Your task to perform on an android device: Do I have any events tomorrow? Image 0: 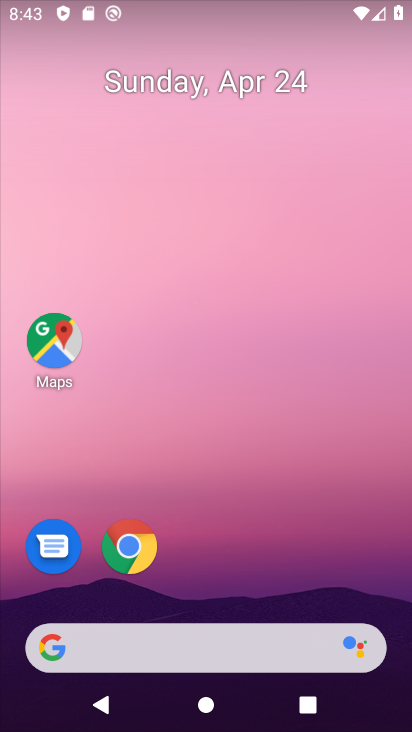
Step 0: drag from (273, 623) to (277, 223)
Your task to perform on an android device: Do I have any events tomorrow? Image 1: 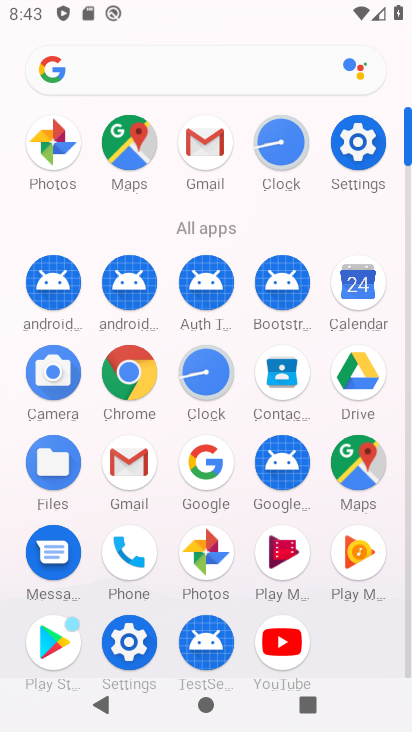
Step 1: click (360, 274)
Your task to perform on an android device: Do I have any events tomorrow? Image 2: 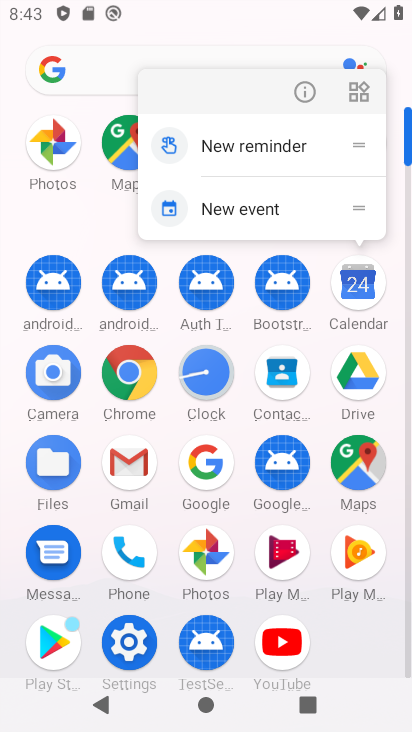
Step 2: click (359, 274)
Your task to perform on an android device: Do I have any events tomorrow? Image 3: 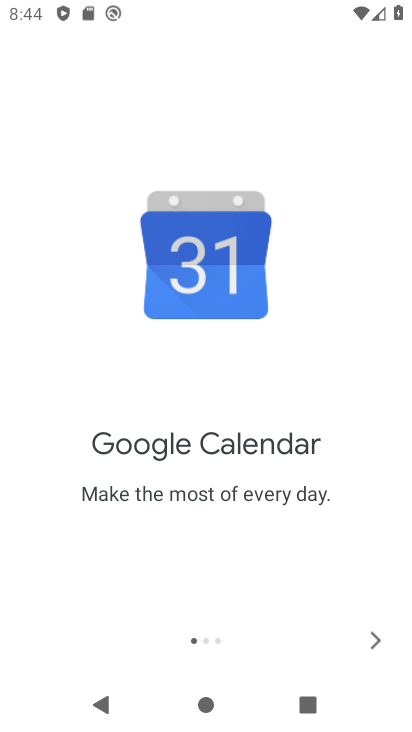
Step 3: click (368, 638)
Your task to perform on an android device: Do I have any events tomorrow? Image 4: 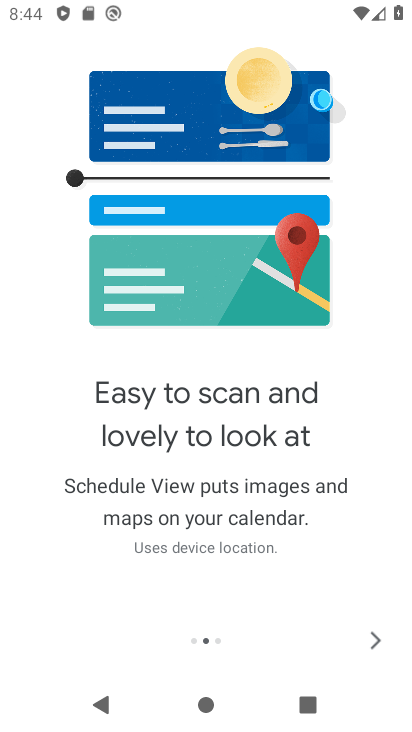
Step 4: click (368, 638)
Your task to perform on an android device: Do I have any events tomorrow? Image 5: 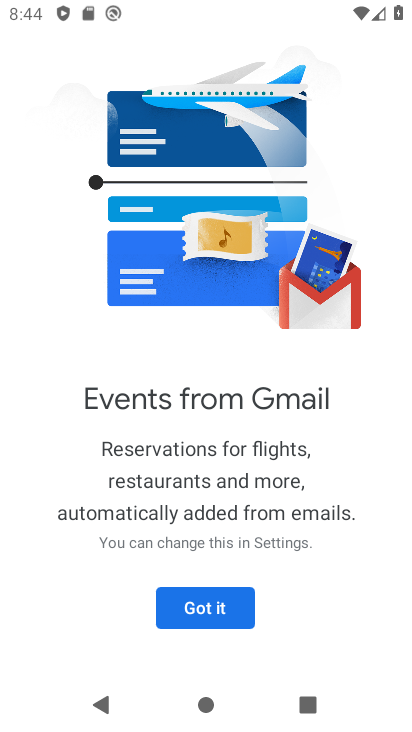
Step 5: click (205, 617)
Your task to perform on an android device: Do I have any events tomorrow? Image 6: 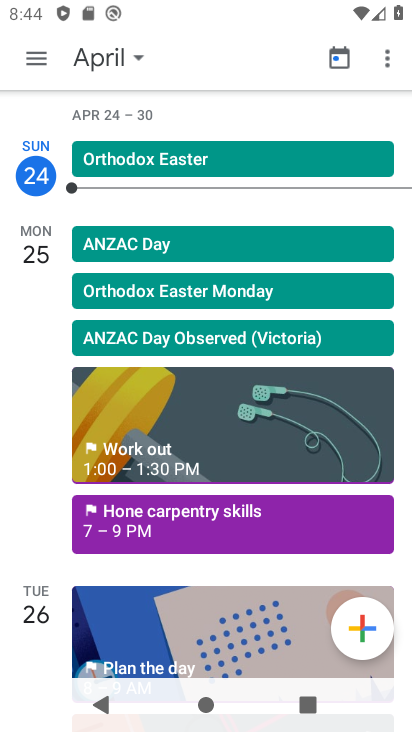
Step 6: click (27, 52)
Your task to perform on an android device: Do I have any events tomorrow? Image 7: 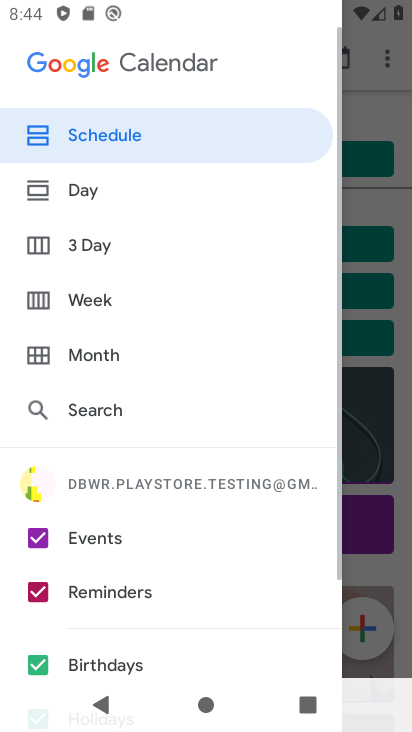
Step 7: click (95, 347)
Your task to perform on an android device: Do I have any events tomorrow? Image 8: 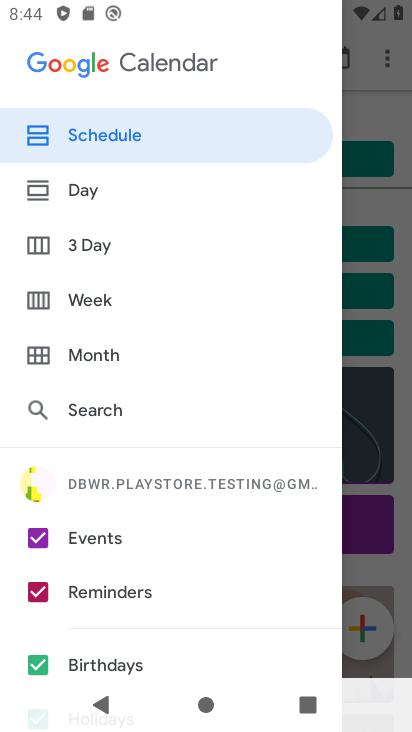
Step 8: click (107, 353)
Your task to perform on an android device: Do I have any events tomorrow? Image 9: 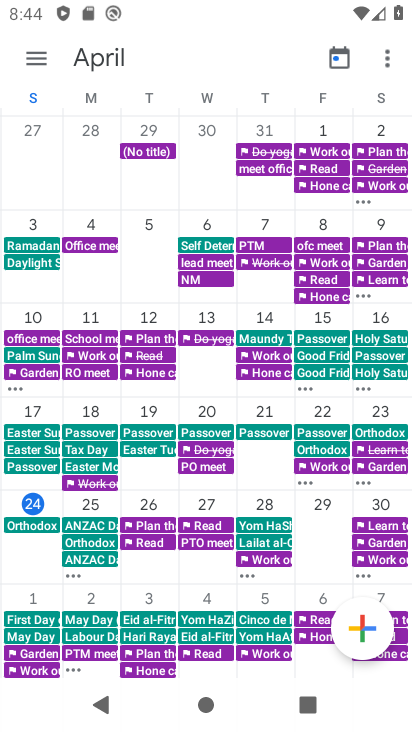
Step 9: click (22, 505)
Your task to perform on an android device: Do I have any events tomorrow? Image 10: 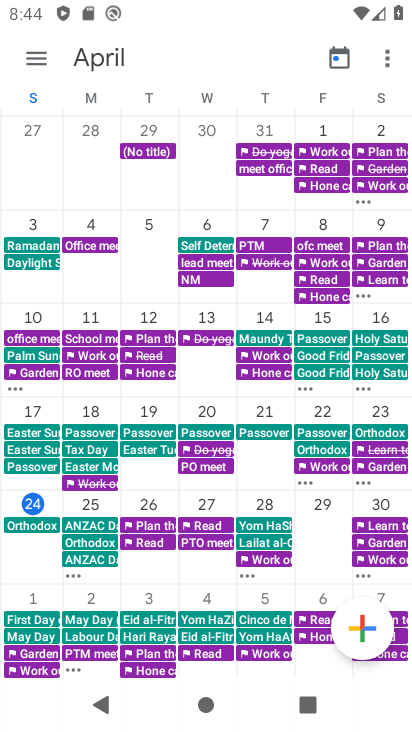
Step 10: click (22, 505)
Your task to perform on an android device: Do I have any events tomorrow? Image 11: 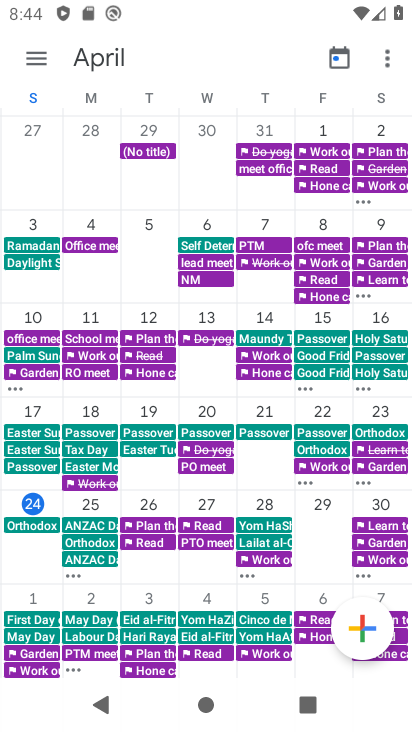
Step 11: click (26, 509)
Your task to perform on an android device: Do I have any events tomorrow? Image 12: 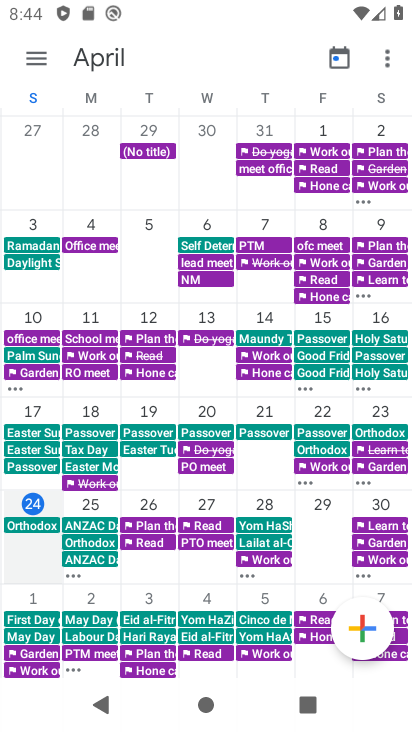
Step 12: click (32, 505)
Your task to perform on an android device: Do I have any events tomorrow? Image 13: 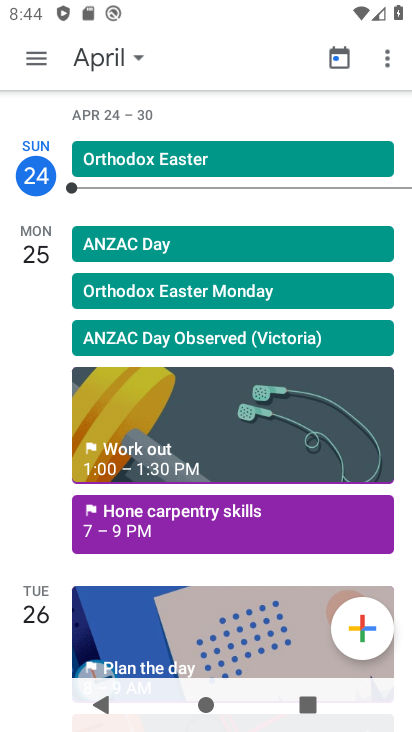
Step 13: press back button
Your task to perform on an android device: Do I have any events tomorrow? Image 14: 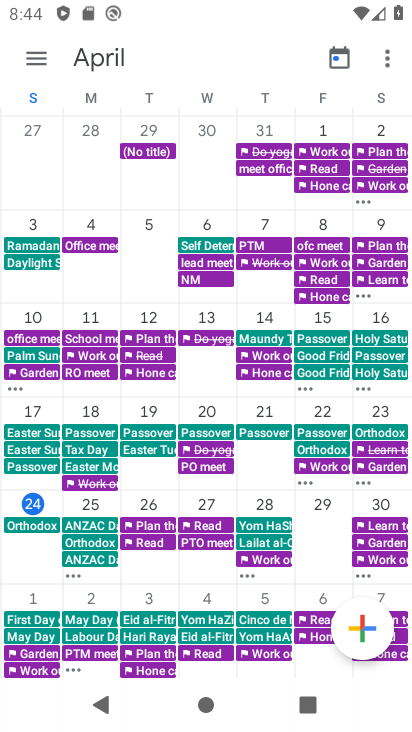
Step 14: click (80, 513)
Your task to perform on an android device: Do I have any events tomorrow? Image 15: 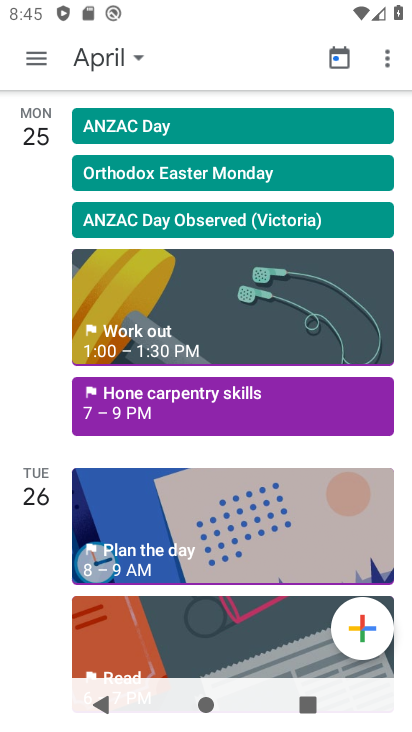
Step 15: click (133, 119)
Your task to perform on an android device: Do I have any events tomorrow? Image 16: 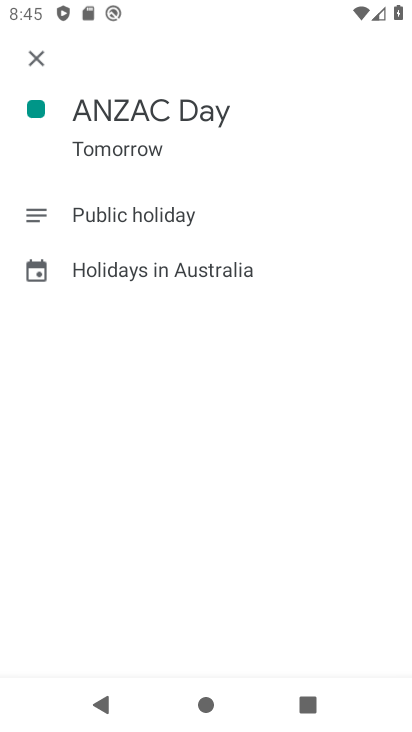
Step 16: task complete